Your task to perform on an android device: set an alarm Image 0: 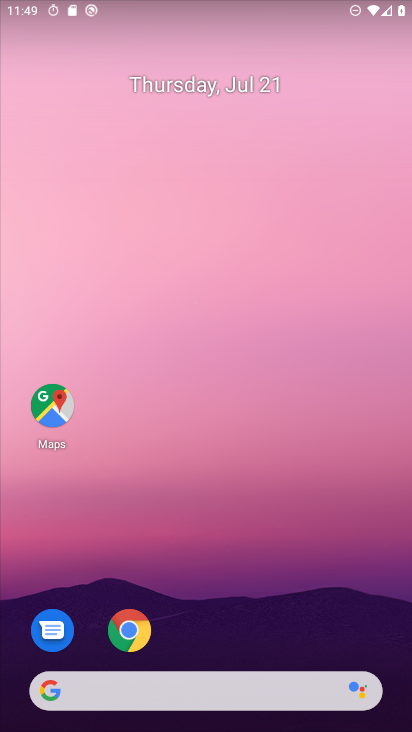
Step 0: press home button
Your task to perform on an android device: set an alarm Image 1: 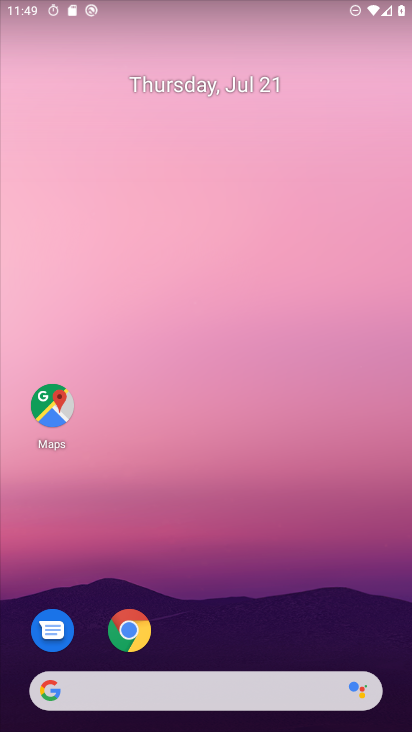
Step 1: drag from (276, 612) to (257, 170)
Your task to perform on an android device: set an alarm Image 2: 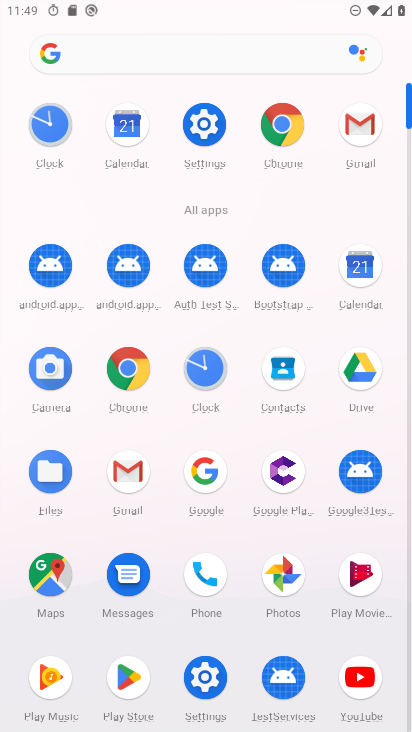
Step 2: click (205, 367)
Your task to perform on an android device: set an alarm Image 3: 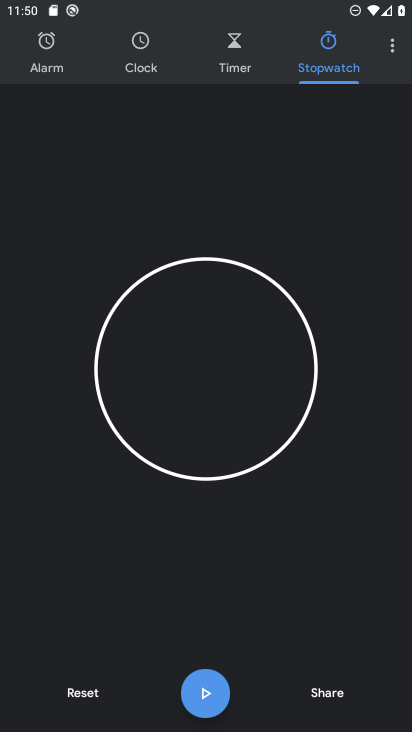
Step 3: click (50, 52)
Your task to perform on an android device: set an alarm Image 4: 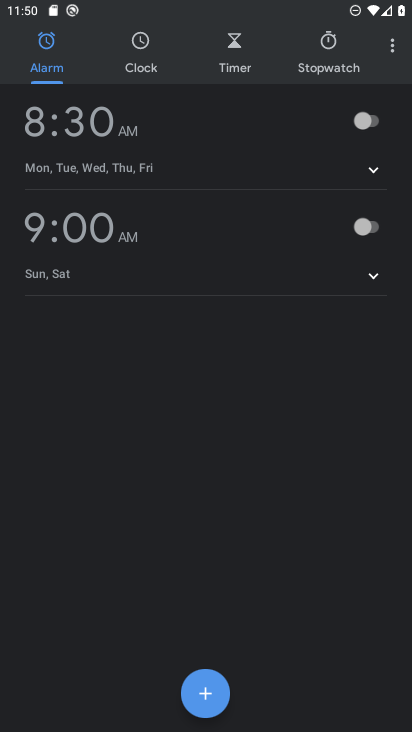
Step 4: task complete